Your task to perform on an android device: Open calendar and show me the second week of next month Image 0: 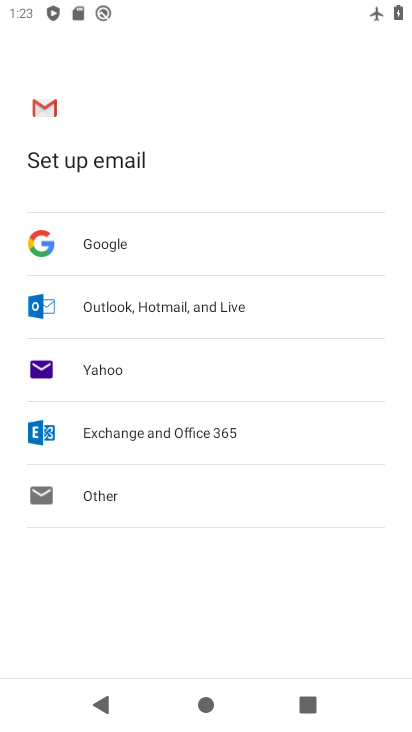
Step 0: press back button
Your task to perform on an android device: Open calendar and show me the second week of next month Image 1: 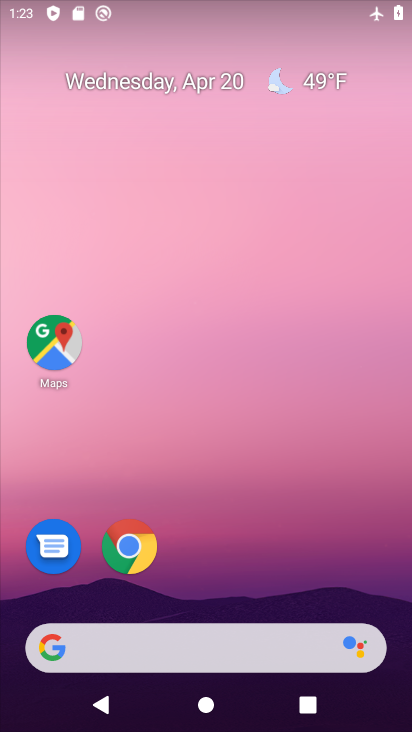
Step 1: drag from (181, 465) to (365, 15)
Your task to perform on an android device: Open calendar and show me the second week of next month Image 2: 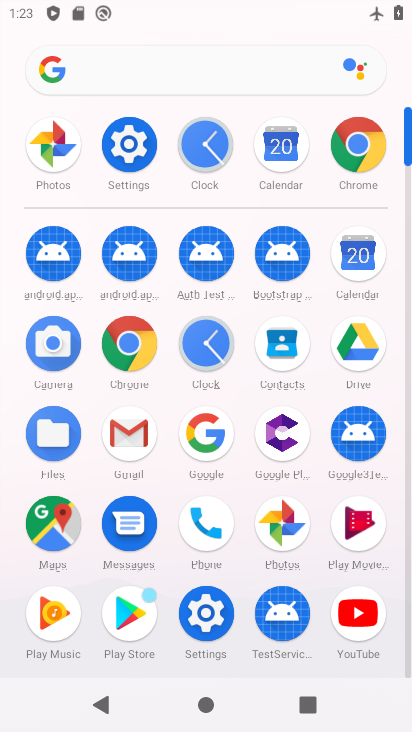
Step 2: click (367, 248)
Your task to perform on an android device: Open calendar and show me the second week of next month Image 3: 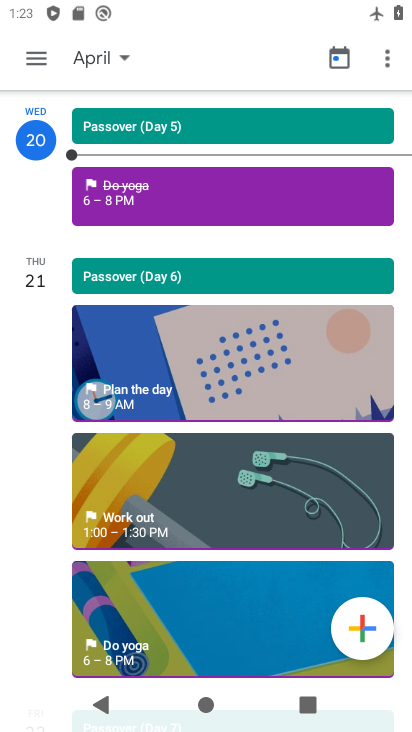
Step 3: click (113, 56)
Your task to perform on an android device: Open calendar and show me the second week of next month Image 4: 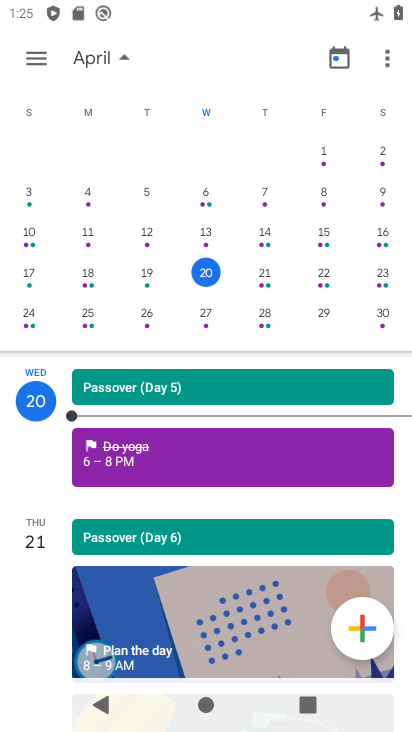
Step 4: click (123, 49)
Your task to perform on an android device: Open calendar and show me the second week of next month Image 5: 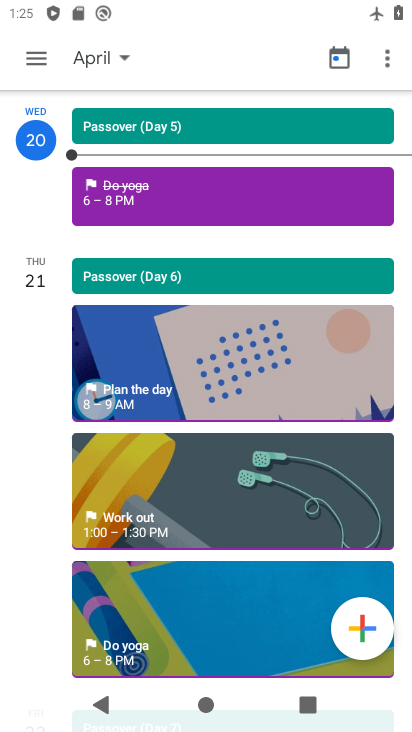
Step 5: click (87, 52)
Your task to perform on an android device: Open calendar and show me the second week of next month Image 6: 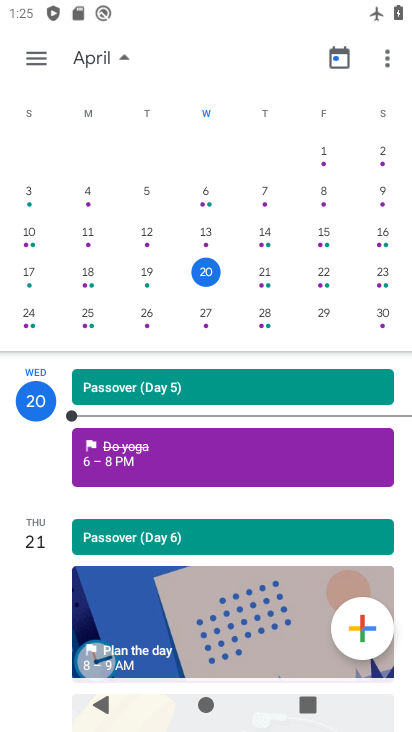
Step 6: drag from (343, 255) to (27, 200)
Your task to perform on an android device: Open calendar and show me the second week of next month Image 7: 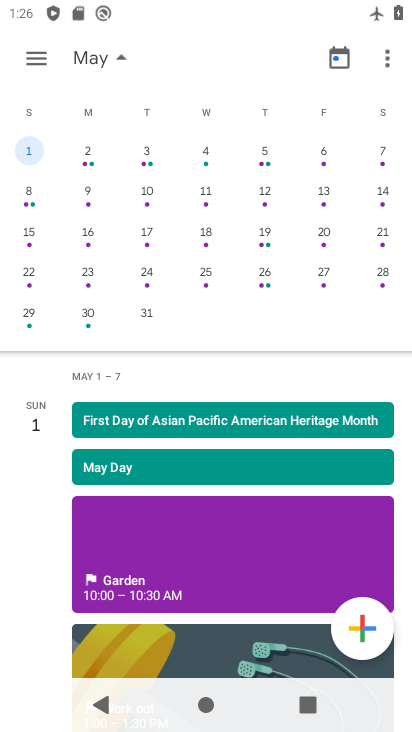
Step 7: click (93, 197)
Your task to perform on an android device: Open calendar and show me the second week of next month Image 8: 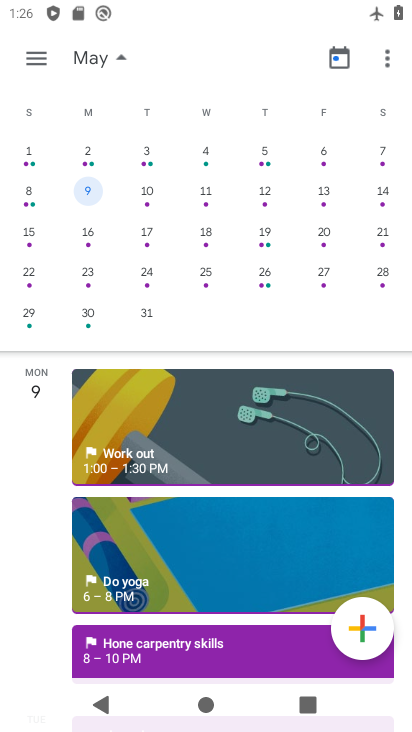
Step 8: task complete